Your task to perform on an android device: Turn off the flashlight Image 0: 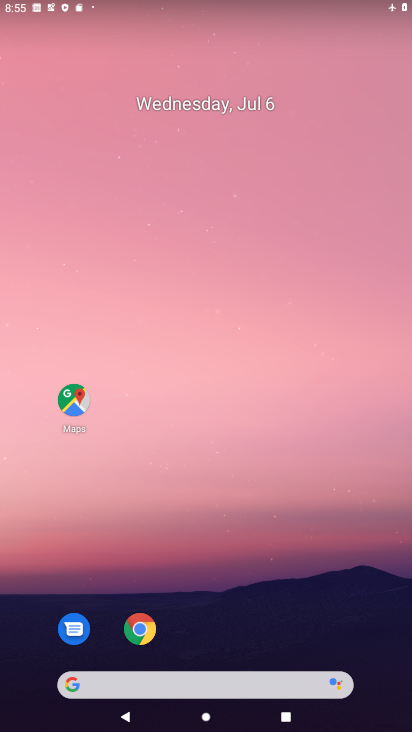
Step 0: drag from (239, 587) to (269, 195)
Your task to perform on an android device: Turn off the flashlight Image 1: 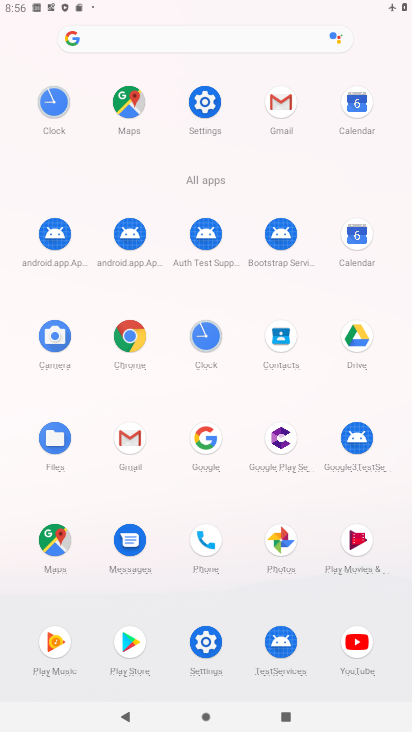
Step 1: click (208, 101)
Your task to perform on an android device: Turn off the flashlight Image 2: 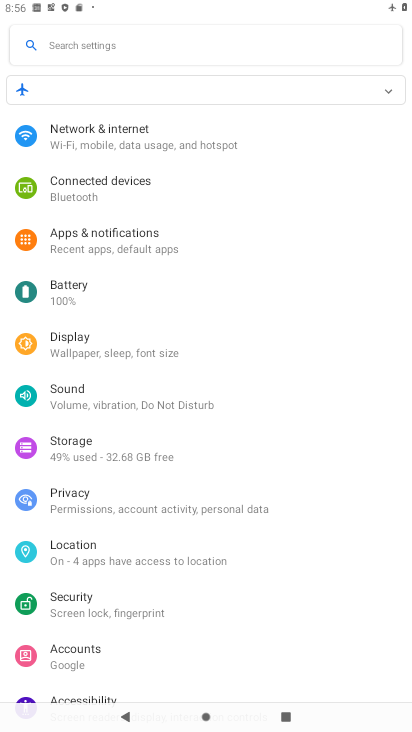
Step 2: click (85, 341)
Your task to perform on an android device: Turn off the flashlight Image 3: 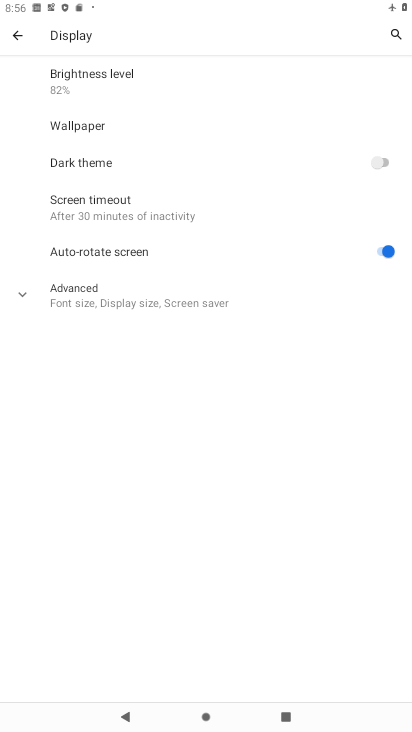
Step 3: click (81, 154)
Your task to perform on an android device: Turn off the flashlight Image 4: 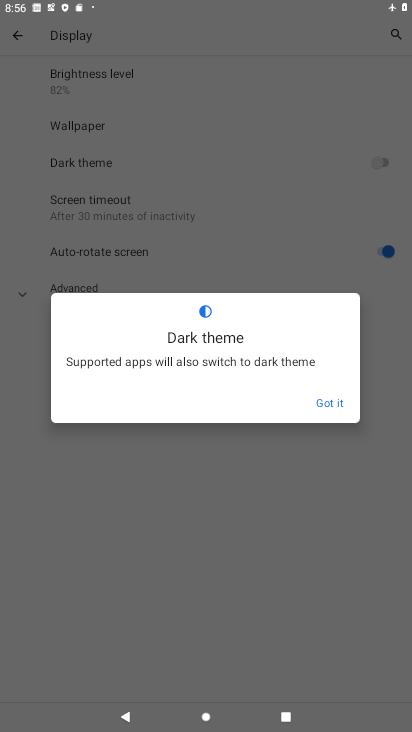
Step 4: click (327, 404)
Your task to perform on an android device: Turn off the flashlight Image 5: 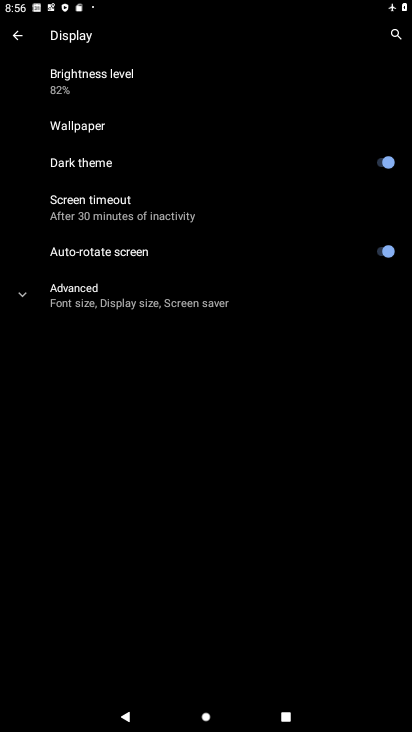
Step 5: press back button
Your task to perform on an android device: Turn off the flashlight Image 6: 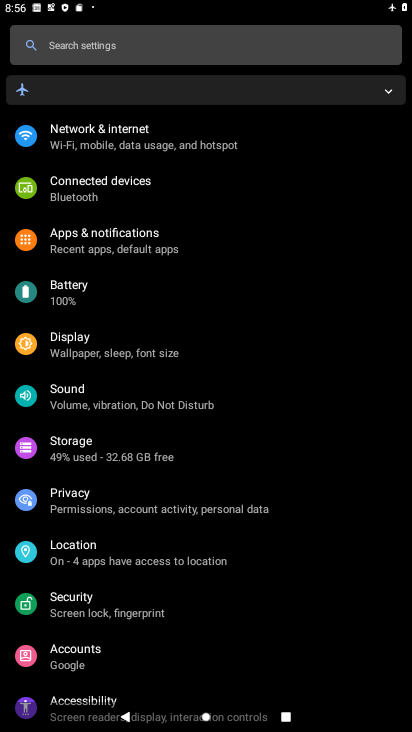
Step 6: click (119, 396)
Your task to perform on an android device: Turn off the flashlight Image 7: 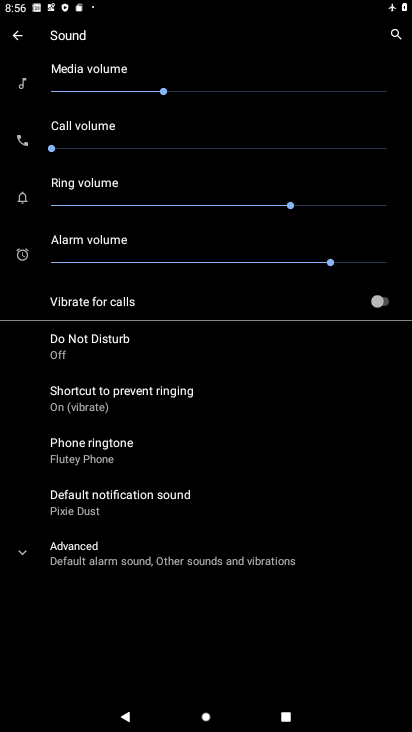
Step 7: press back button
Your task to perform on an android device: Turn off the flashlight Image 8: 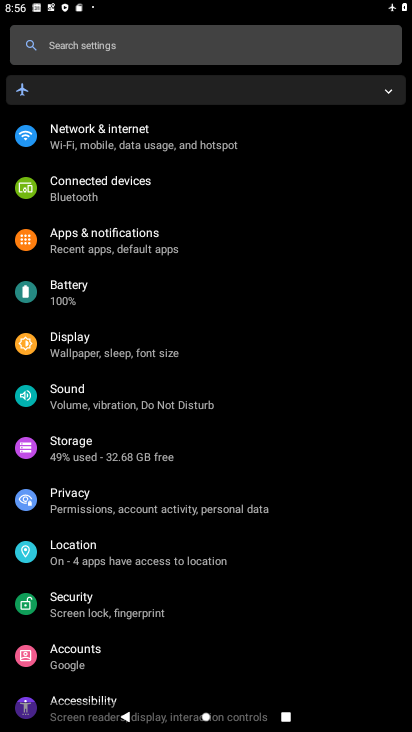
Step 8: drag from (131, 565) to (207, 469)
Your task to perform on an android device: Turn off the flashlight Image 9: 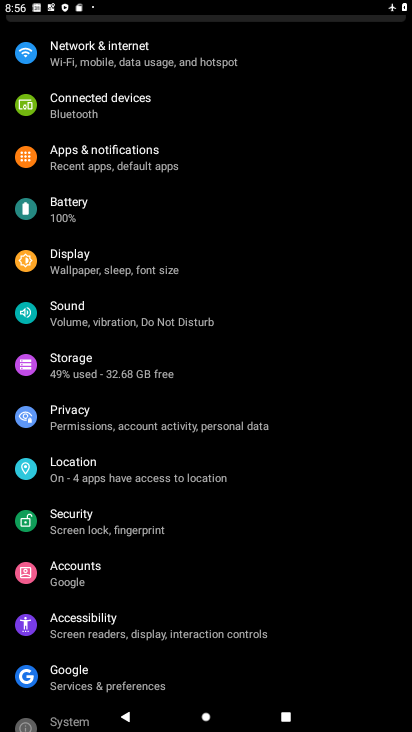
Step 9: click (148, 624)
Your task to perform on an android device: Turn off the flashlight Image 10: 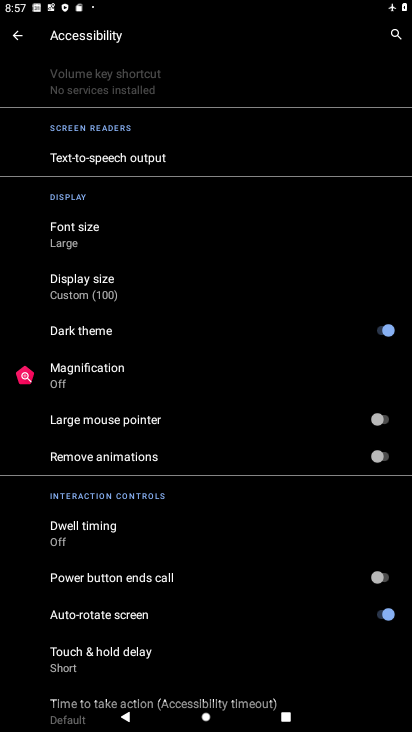
Step 10: task complete